Your task to perform on an android device: Open notification settings Image 0: 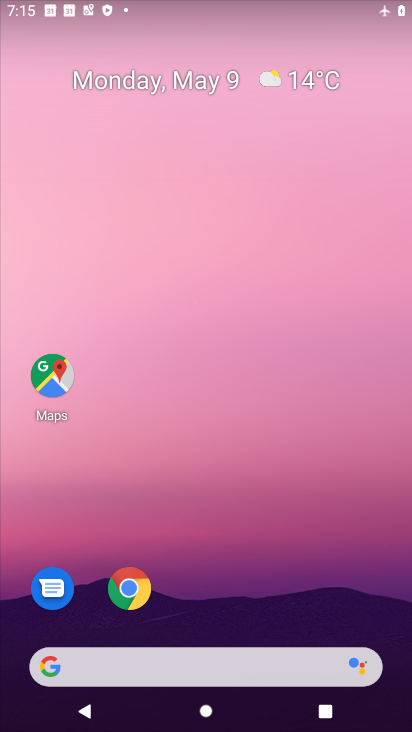
Step 0: drag from (354, 619) to (282, 43)
Your task to perform on an android device: Open notification settings Image 1: 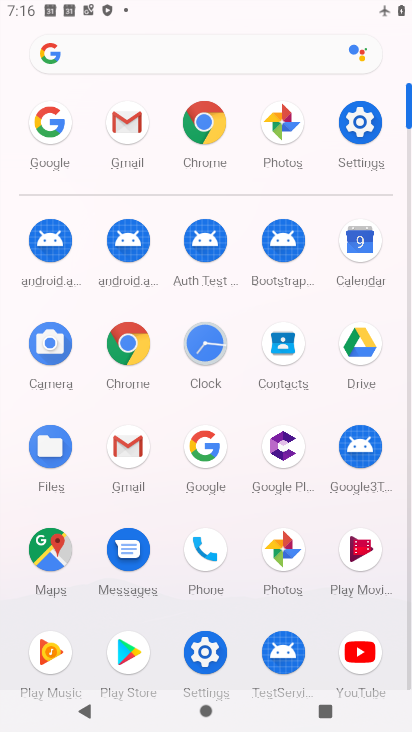
Step 1: click (204, 645)
Your task to perform on an android device: Open notification settings Image 2: 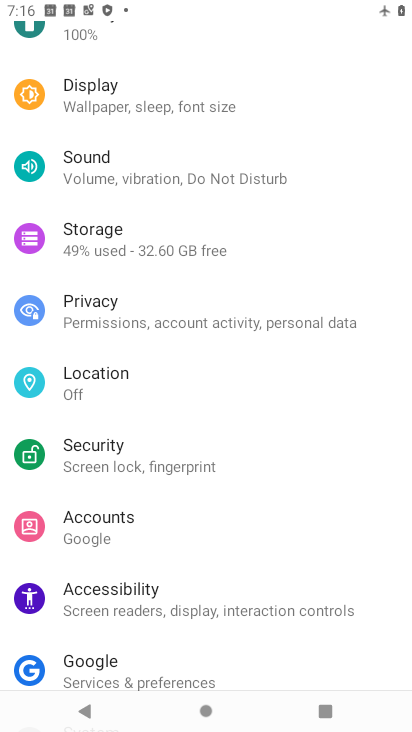
Step 2: drag from (159, 152) to (201, 592)
Your task to perform on an android device: Open notification settings Image 3: 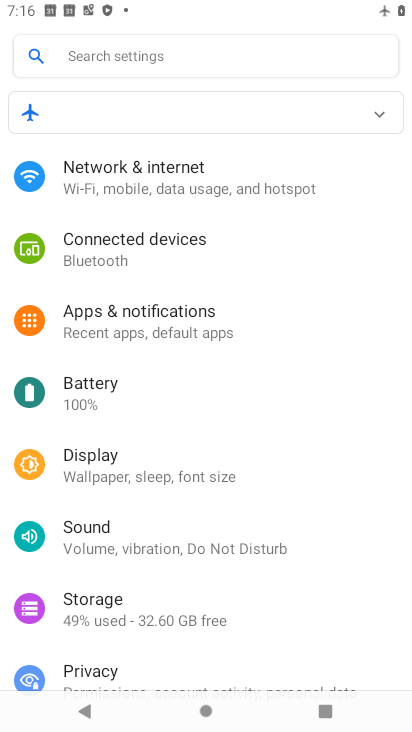
Step 3: click (170, 322)
Your task to perform on an android device: Open notification settings Image 4: 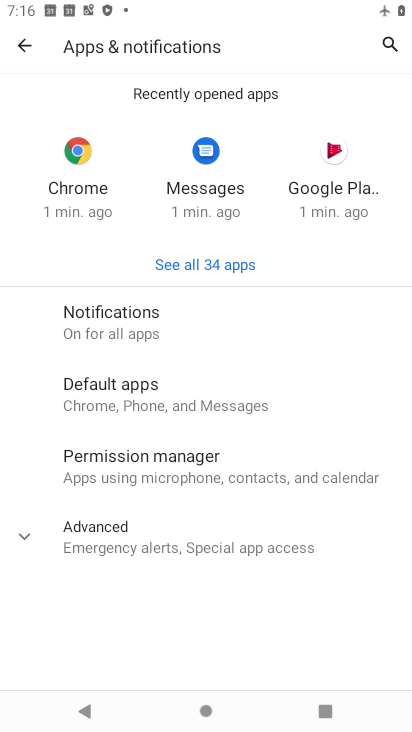
Step 4: click (170, 322)
Your task to perform on an android device: Open notification settings Image 5: 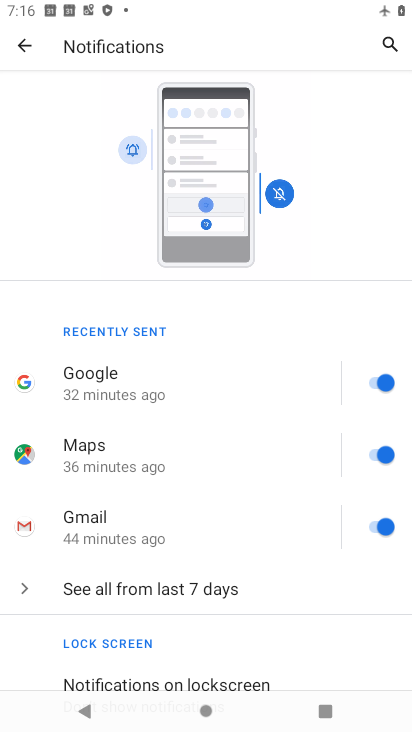
Step 5: task complete